Your task to perform on an android device: turn off location history Image 0: 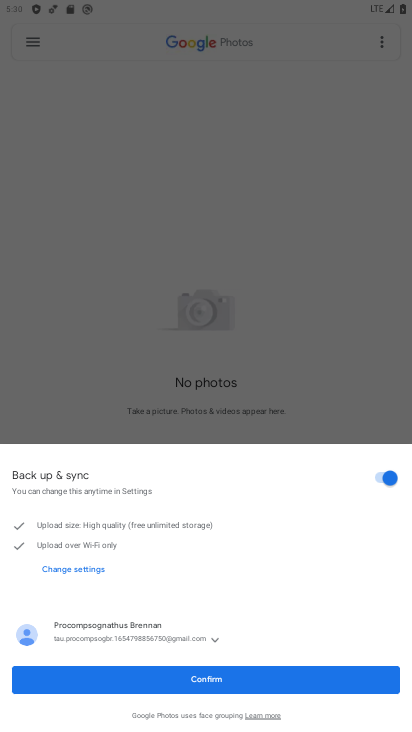
Step 0: press home button
Your task to perform on an android device: turn off location history Image 1: 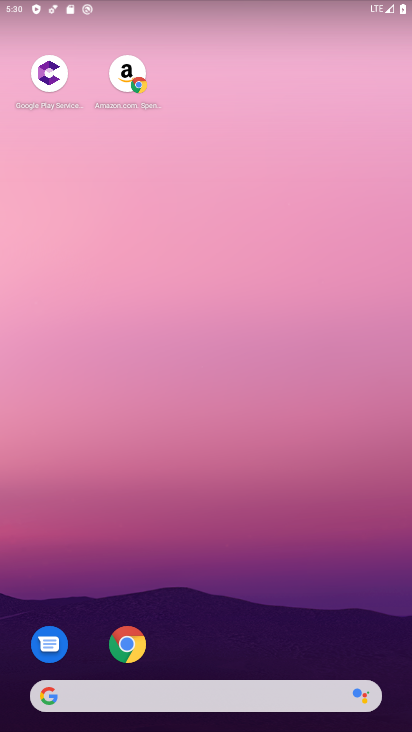
Step 1: drag from (204, 700) to (224, 154)
Your task to perform on an android device: turn off location history Image 2: 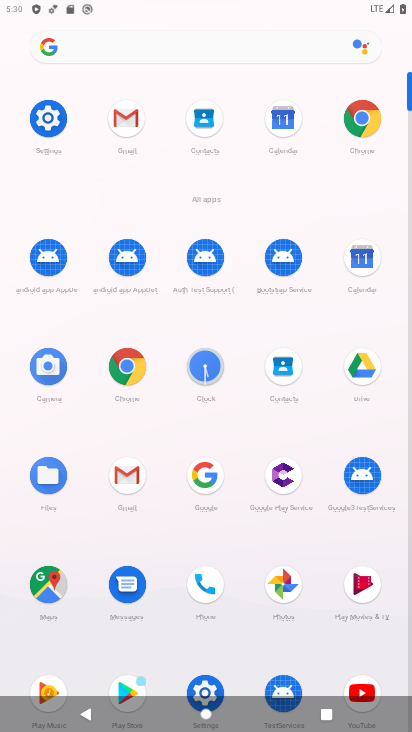
Step 2: click (36, 112)
Your task to perform on an android device: turn off location history Image 3: 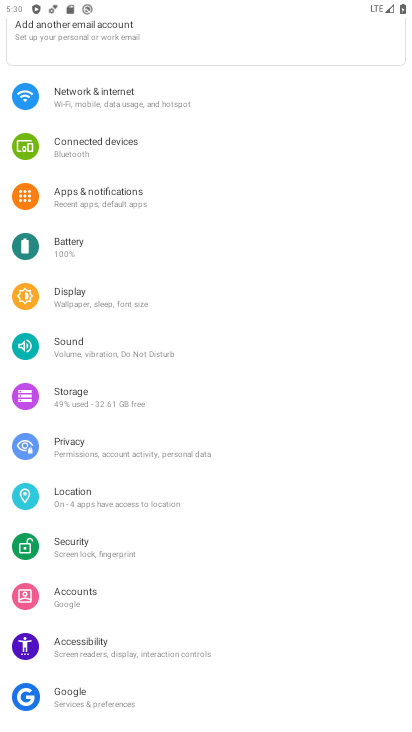
Step 3: click (86, 491)
Your task to perform on an android device: turn off location history Image 4: 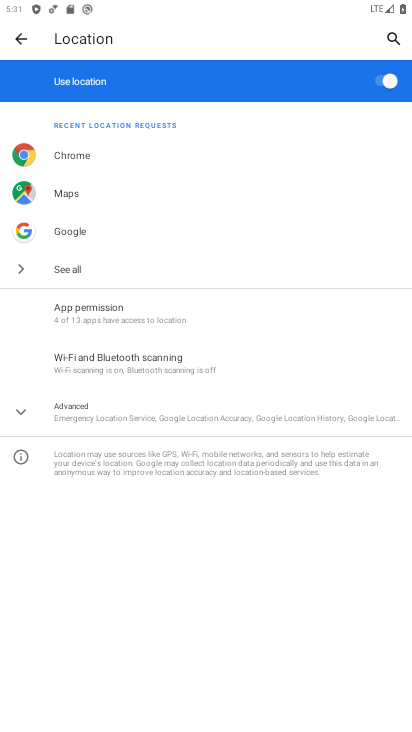
Step 4: click (81, 408)
Your task to perform on an android device: turn off location history Image 5: 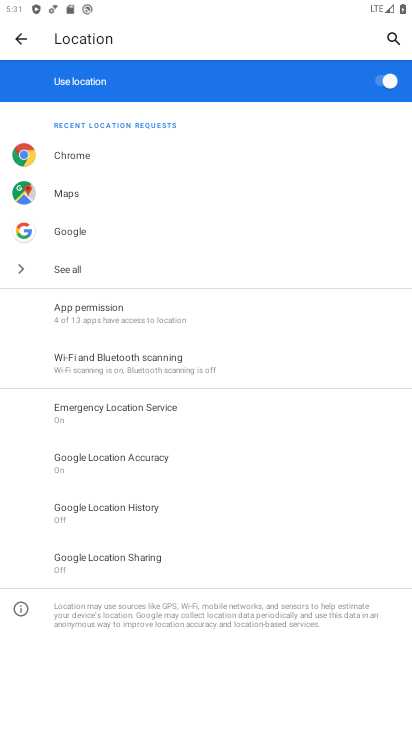
Step 5: click (146, 512)
Your task to perform on an android device: turn off location history Image 6: 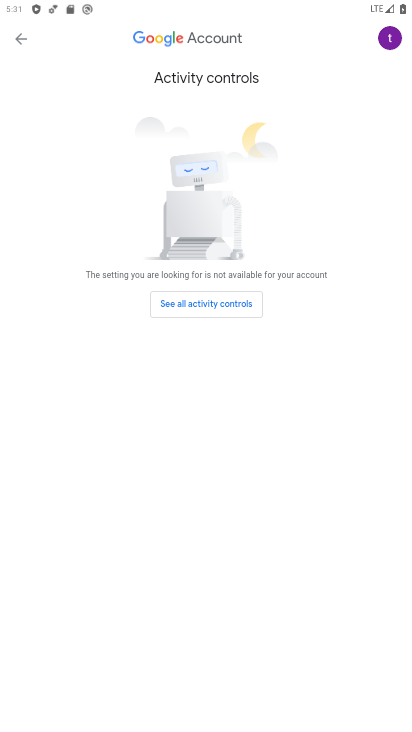
Step 6: click (187, 306)
Your task to perform on an android device: turn off location history Image 7: 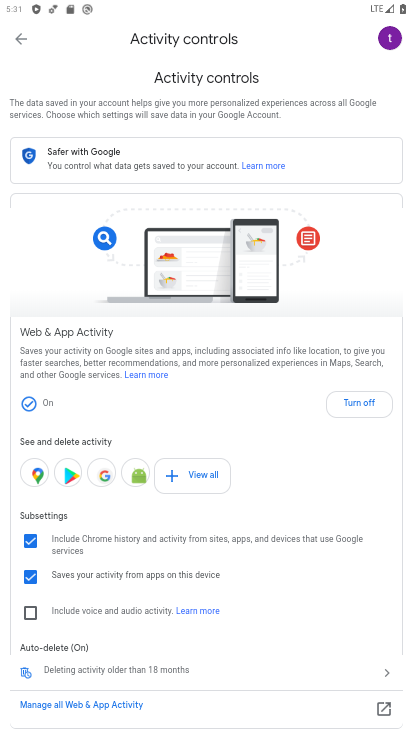
Step 7: click (356, 401)
Your task to perform on an android device: turn off location history Image 8: 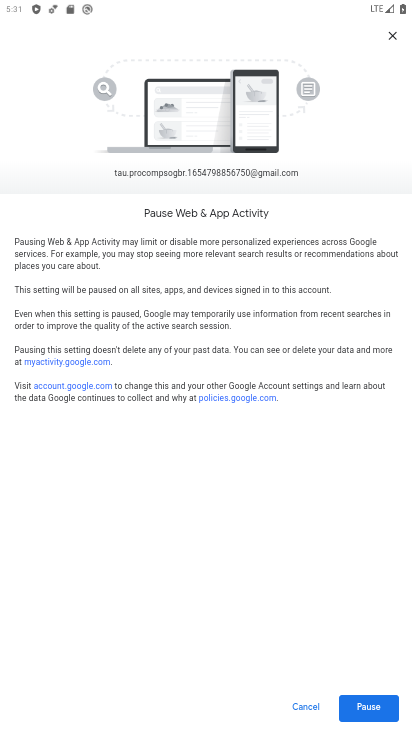
Step 8: click (366, 701)
Your task to perform on an android device: turn off location history Image 9: 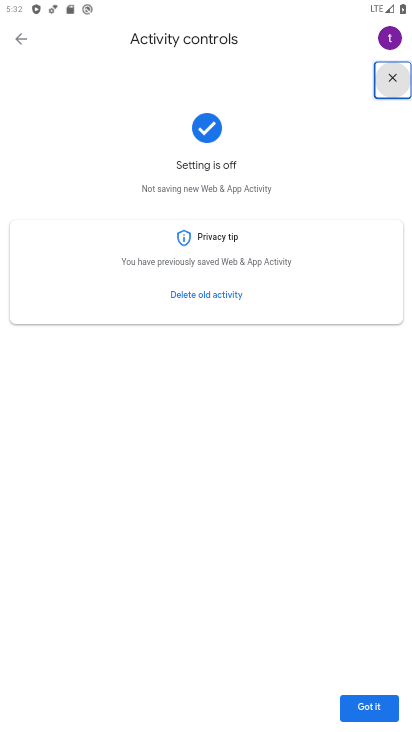
Step 9: task complete